Your task to perform on an android device: Open Youtube and go to the subscriptions tab Image 0: 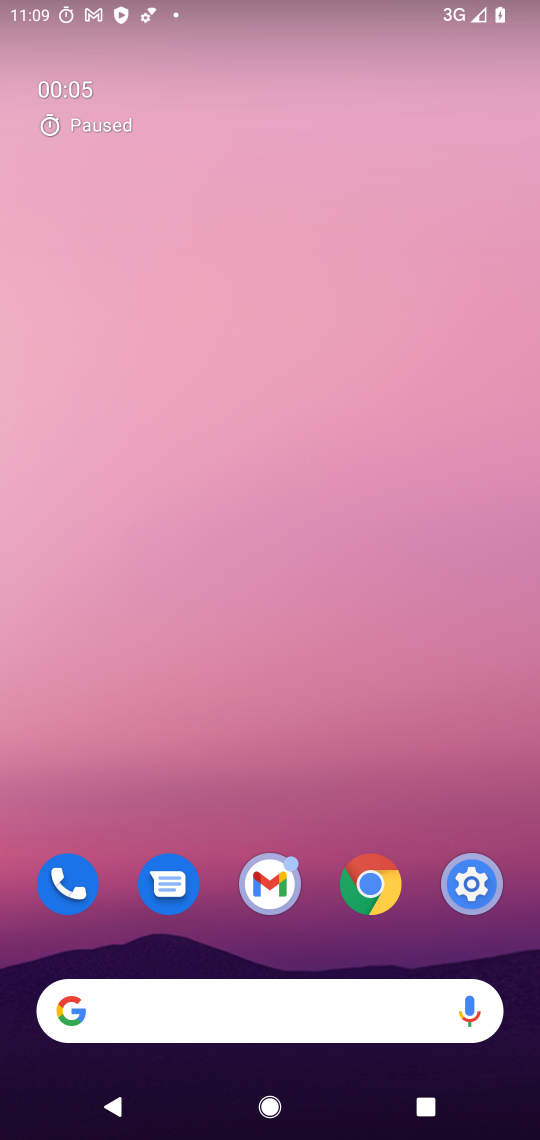
Step 0: drag from (246, 935) to (240, 292)
Your task to perform on an android device: Open Youtube and go to the subscriptions tab Image 1: 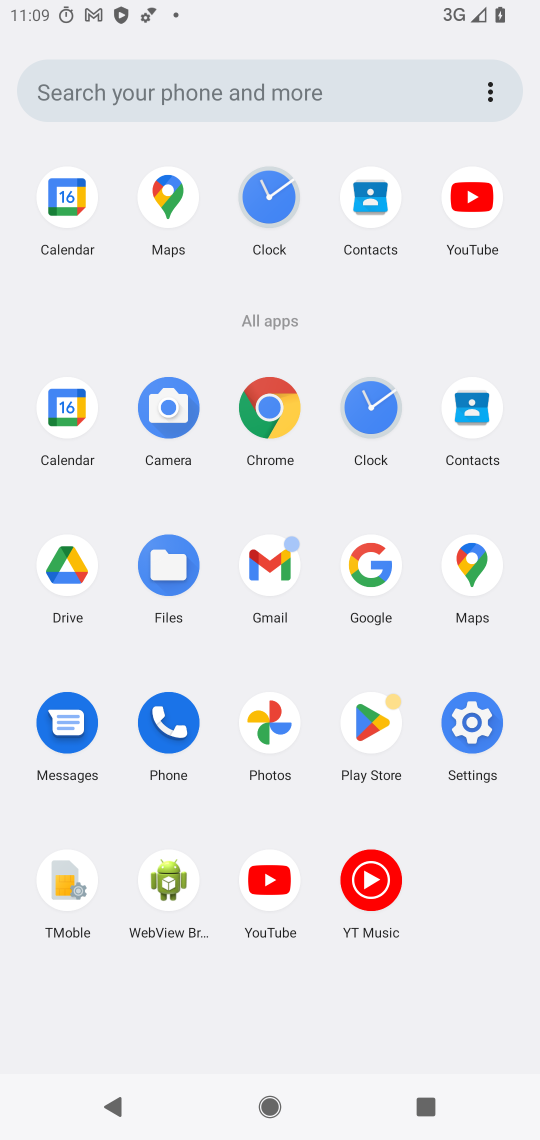
Step 1: click (266, 880)
Your task to perform on an android device: Open Youtube and go to the subscriptions tab Image 2: 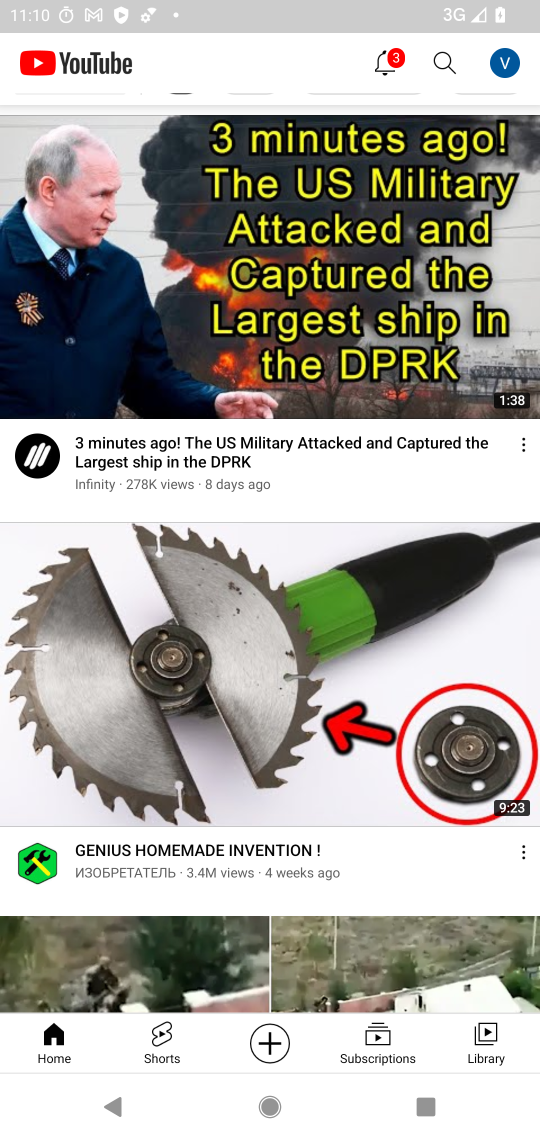
Step 2: click (384, 1048)
Your task to perform on an android device: Open Youtube and go to the subscriptions tab Image 3: 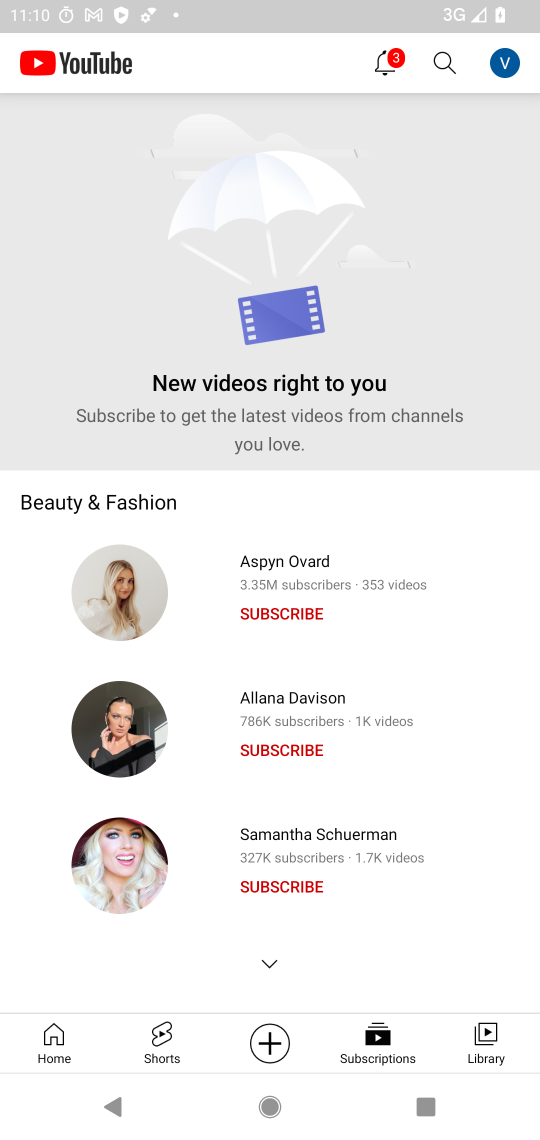
Step 3: task complete